Your task to perform on an android device: clear all cookies in the chrome app Image 0: 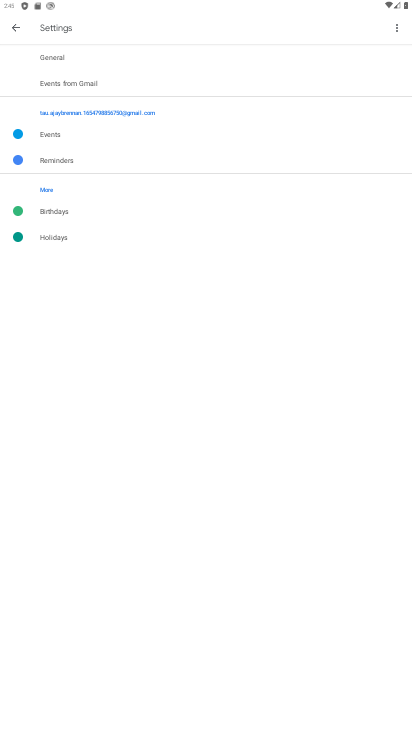
Step 0: press home button
Your task to perform on an android device: clear all cookies in the chrome app Image 1: 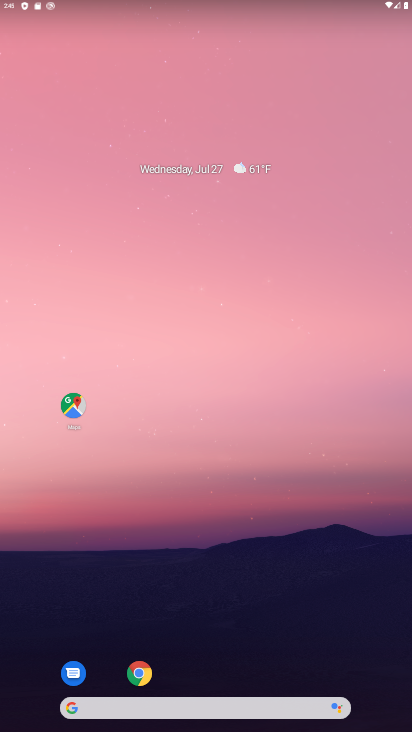
Step 1: click (139, 669)
Your task to perform on an android device: clear all cookies in the chrome app Image 2: 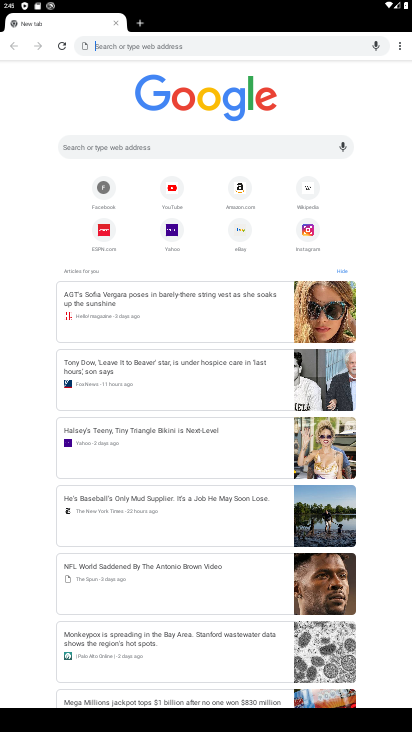
Step 2: click (403, 48)
Your task to perform on an android device: clear all cookies in the chrome app Image 3: 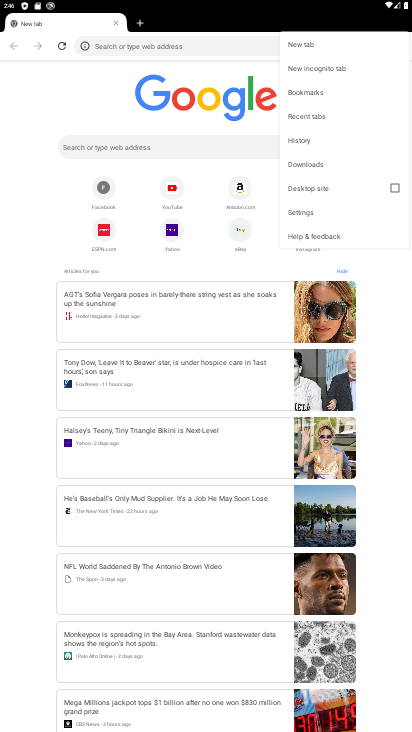
Step 3: click (316, 211)
Your task to perform on an android device: clear all cookies in the chrome app Image 4: 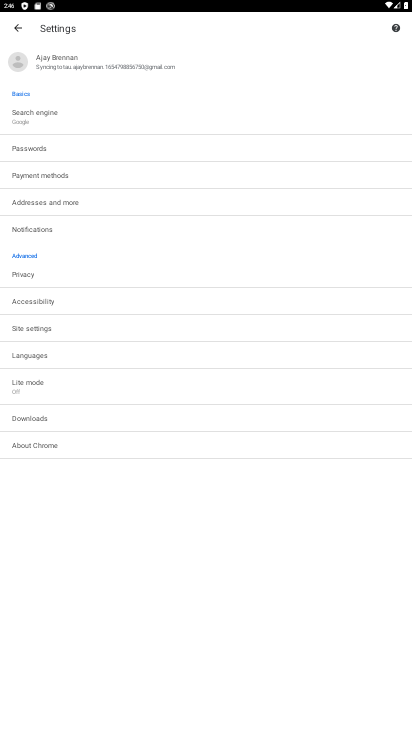
Step 4: click (45, 273)
Your task to perform on an android device: clear all cookies in the chrome app Image 5: 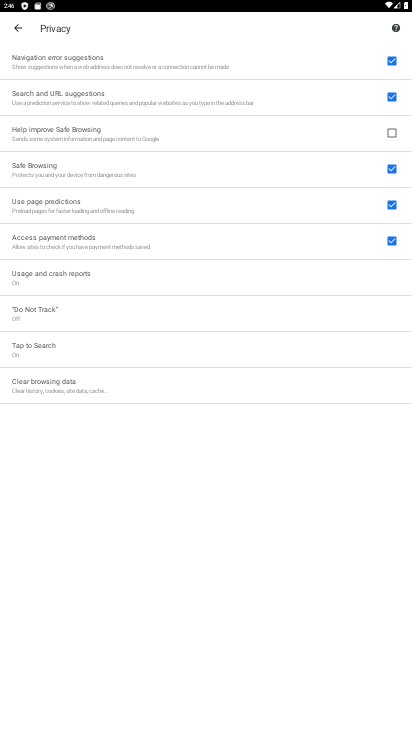
Step 5: click (86, 387)
Your task to perform on an android device: clear all cookies in the chrome app Image 6: 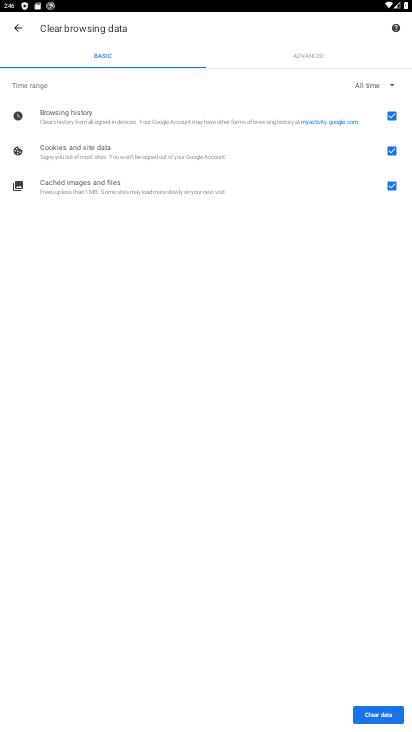
Step 6: click (394, 111)
Your task to perform on an android device: clear all cookies in the chrome app Image 7: 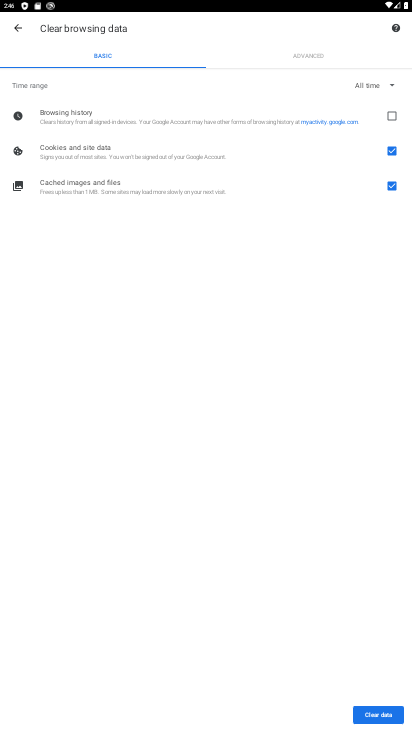
Step 7: click (393, 184)
Your task to perform on an android device: clear all cookies in the chrome app Image 8: 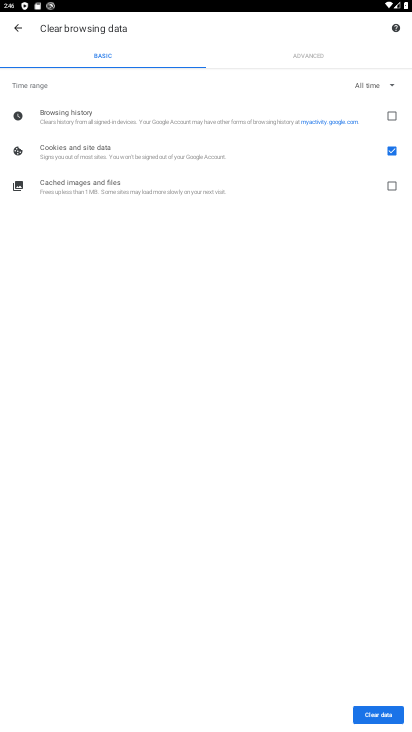
Step 8: click (390, 721)
Your task to perform on an android device: clear all cookies in the chrome app Image 9: 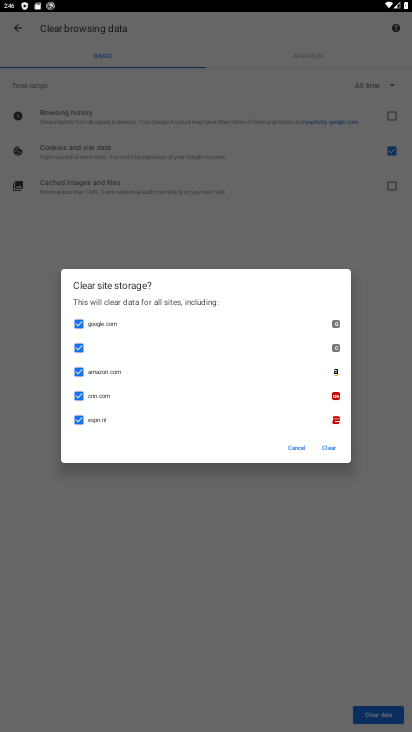
Step 9: click (331, 446)
Your task to perform on an android device: clear all cookies in the chrome app Image 10: 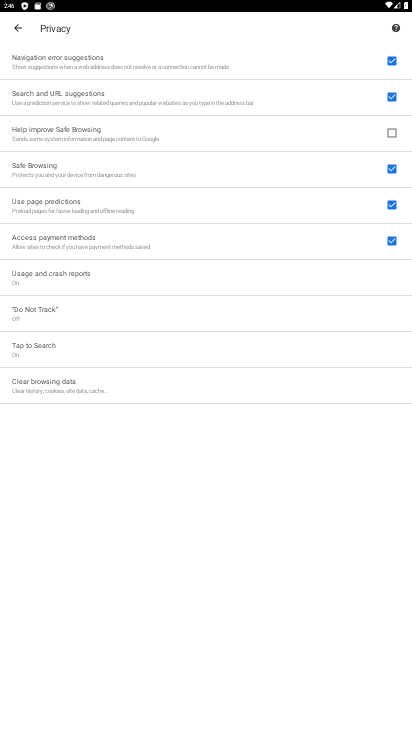
Step 10: task complete